Your task to perform on an android device: Open Yahoo.com Image 0: 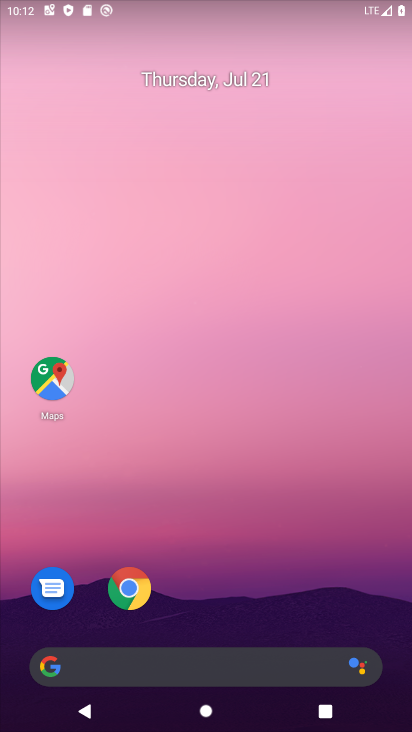
Step 0: click (120, 581)
Your task to perform on an android device: Open Yahoo.com Image 1: 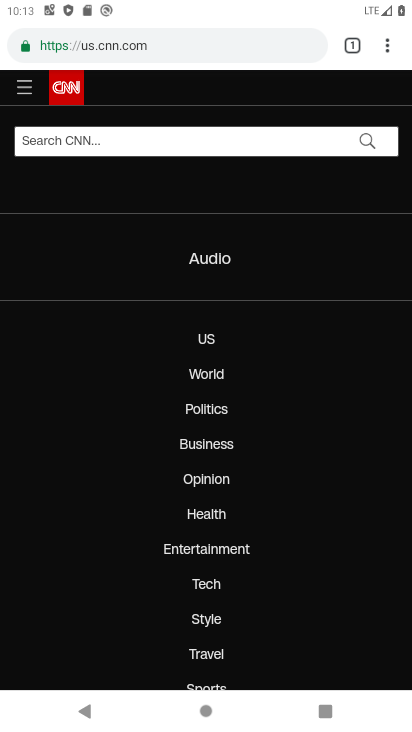
Step 1: click (388, 44)
Your task to perform on an android device: Open Yahoo.com Image 2: 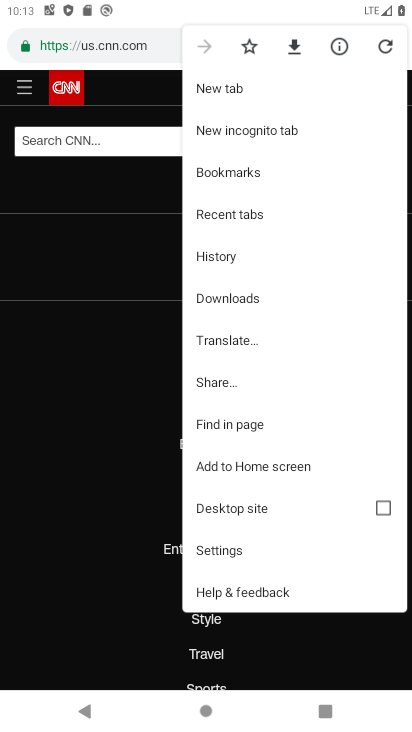
Step 2: click (221, 556)
Your task to perform on an android device: Open Yahoo.com Image 3: 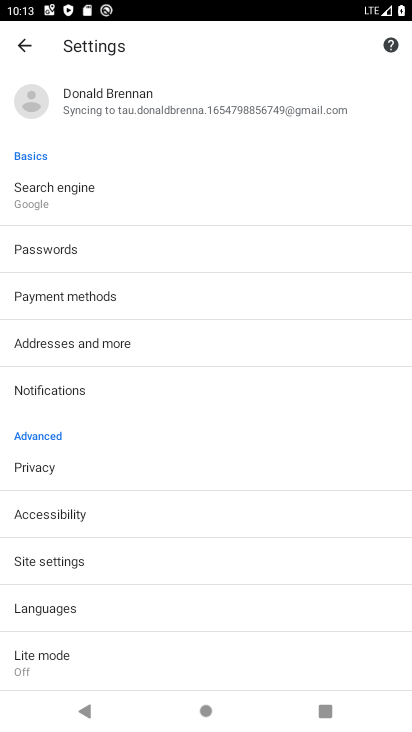
Step 3: press back button
Your task to perform on an android device: Open Yahoo.com Image 4: 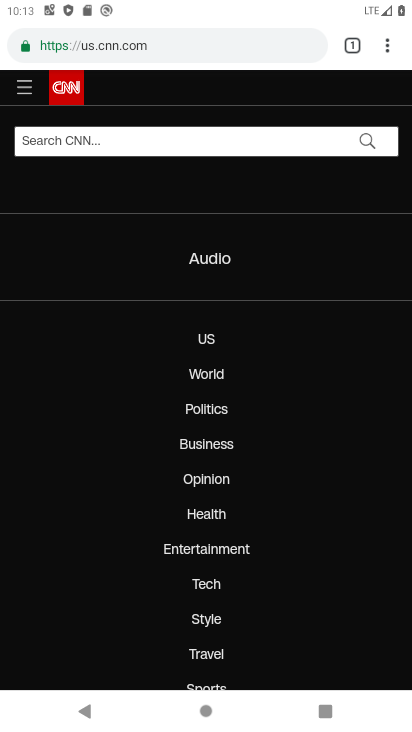
Step 4: click (240, 47)
Your task to perform on an android device: Open Yahoo.com Image 5: 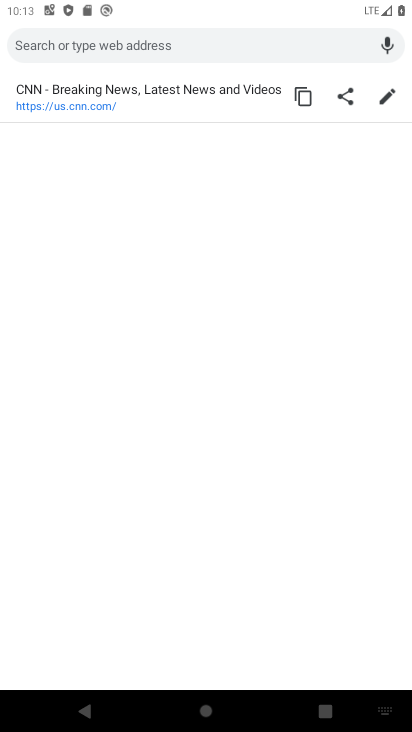
Step 5: type "Yahoo.com"
Your task to perform on an android device: Open Yahoo.com Image 6: 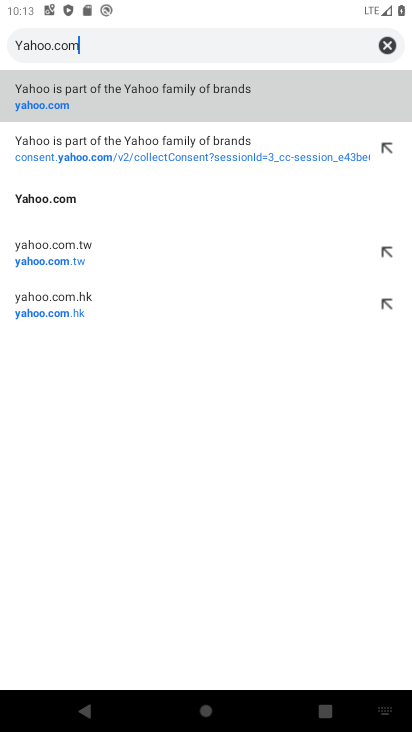
Step 6: click (43, 197)
Your task to perform on an android device: Open Yahoo.com Image 7: 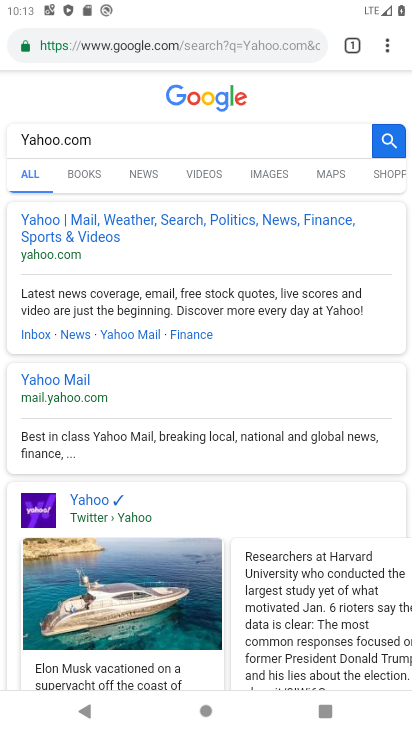
Step 7: task complete